Your task to perform on an android device: Go to internet settings Image 0: 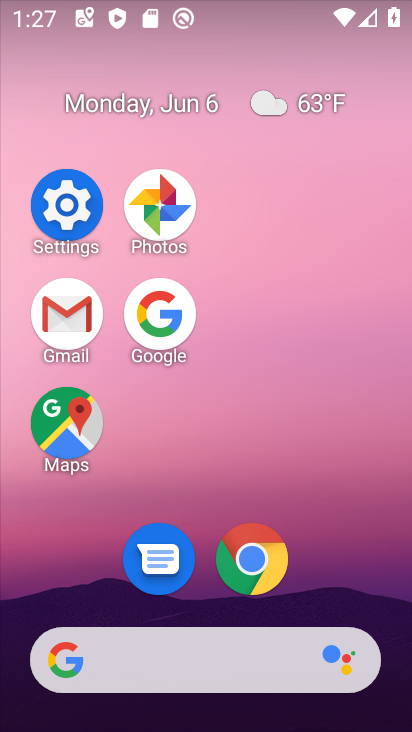
Step 0: click (71, 184)
Your task to perform on an android device: Go to internet settings Image 1: 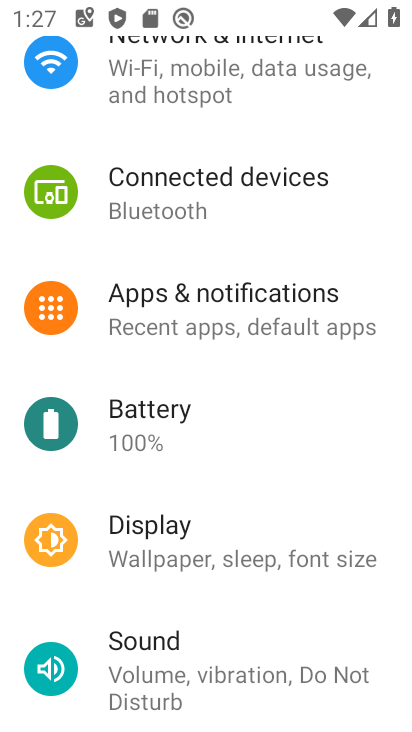
Step 1: drag from (330, 190) to (298, 530)
Your task to perform on an android device: Go to internet settings Image 2: 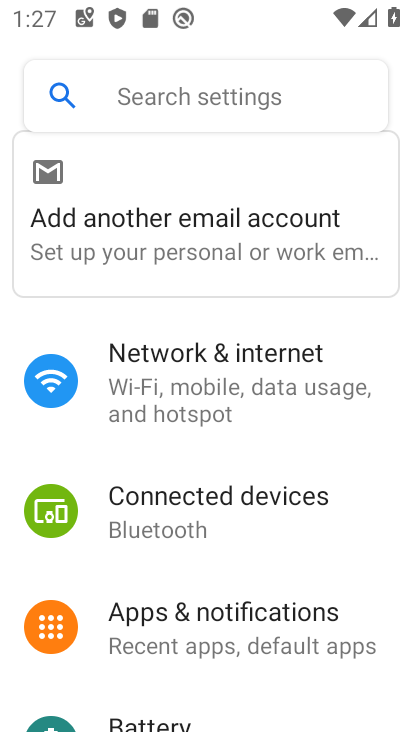
Step 2: click (252, 374)
Your task to perform on an android device: Go to internet settings Image 3: 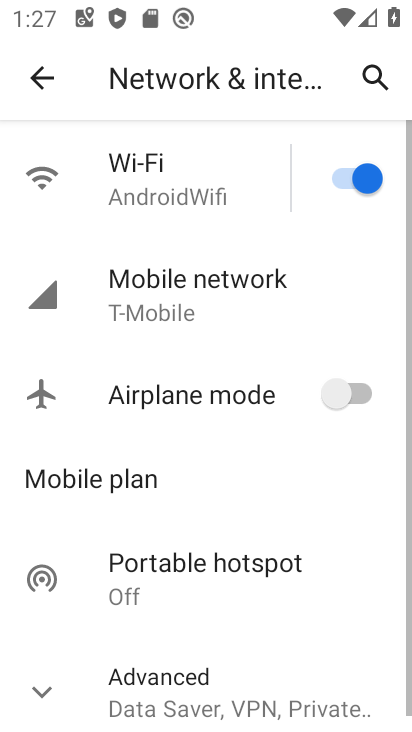
Step 3: task complete